Your task to perform on an android device: Open ESPN.com Image 0: 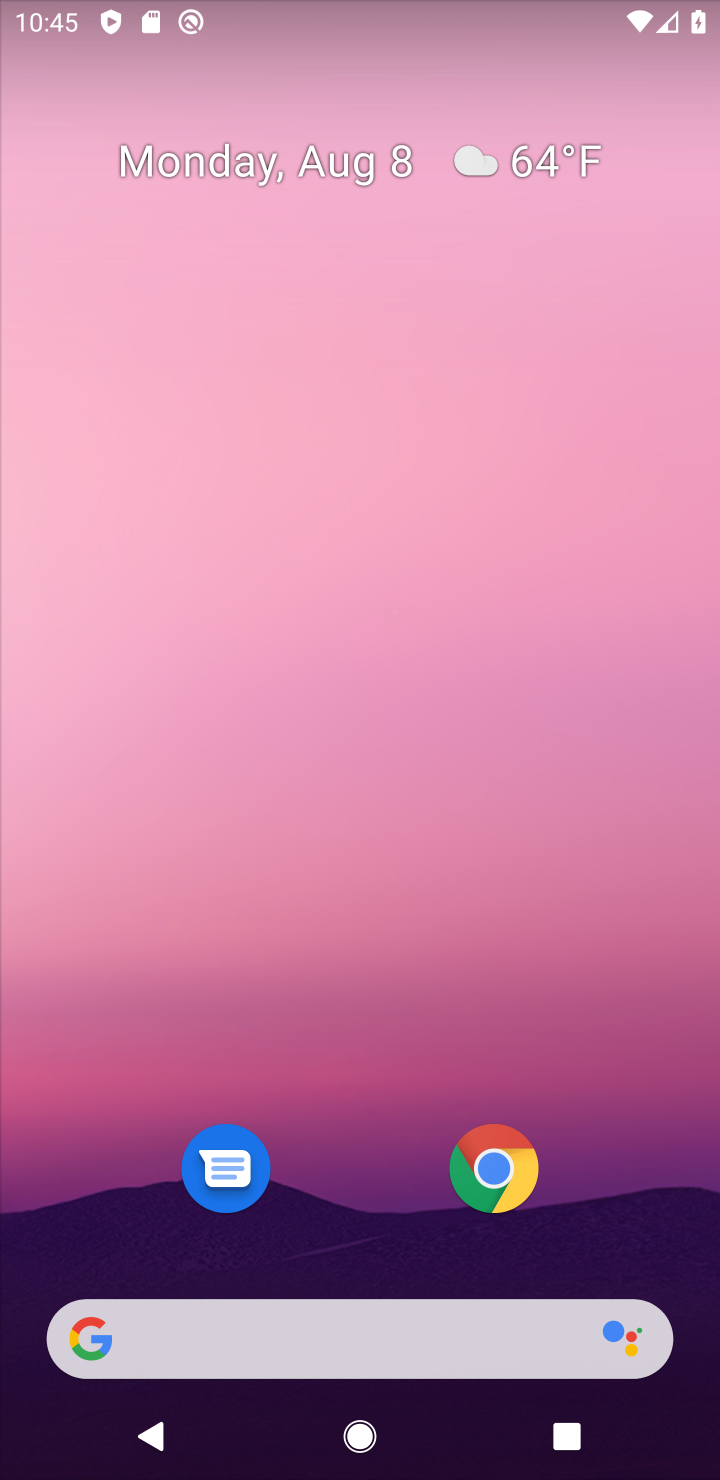
Step 0: click (363, 1343)
Your task to perform on an android device: Open ESPN.com Image 1: 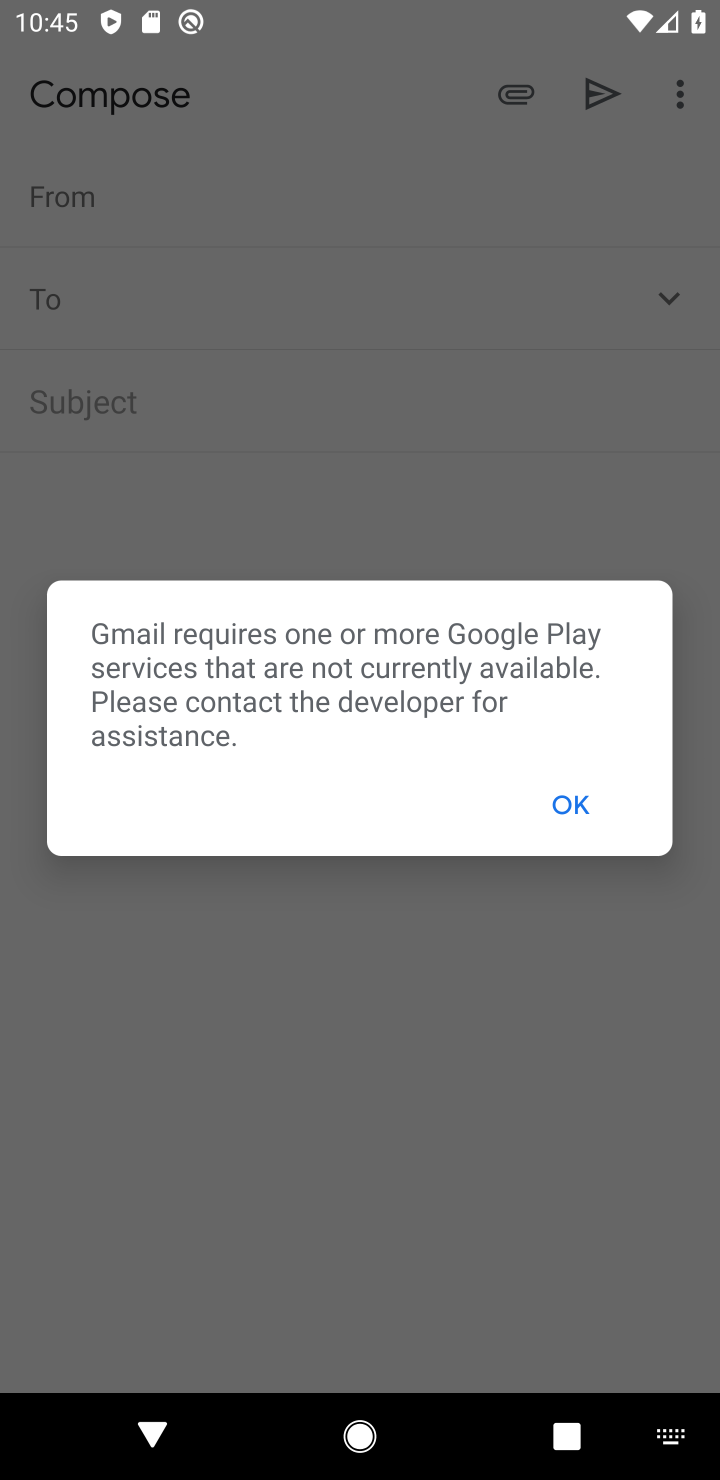
Step 1: press home button
Your task to perform on an android device: Open ESPN.com Image 2: 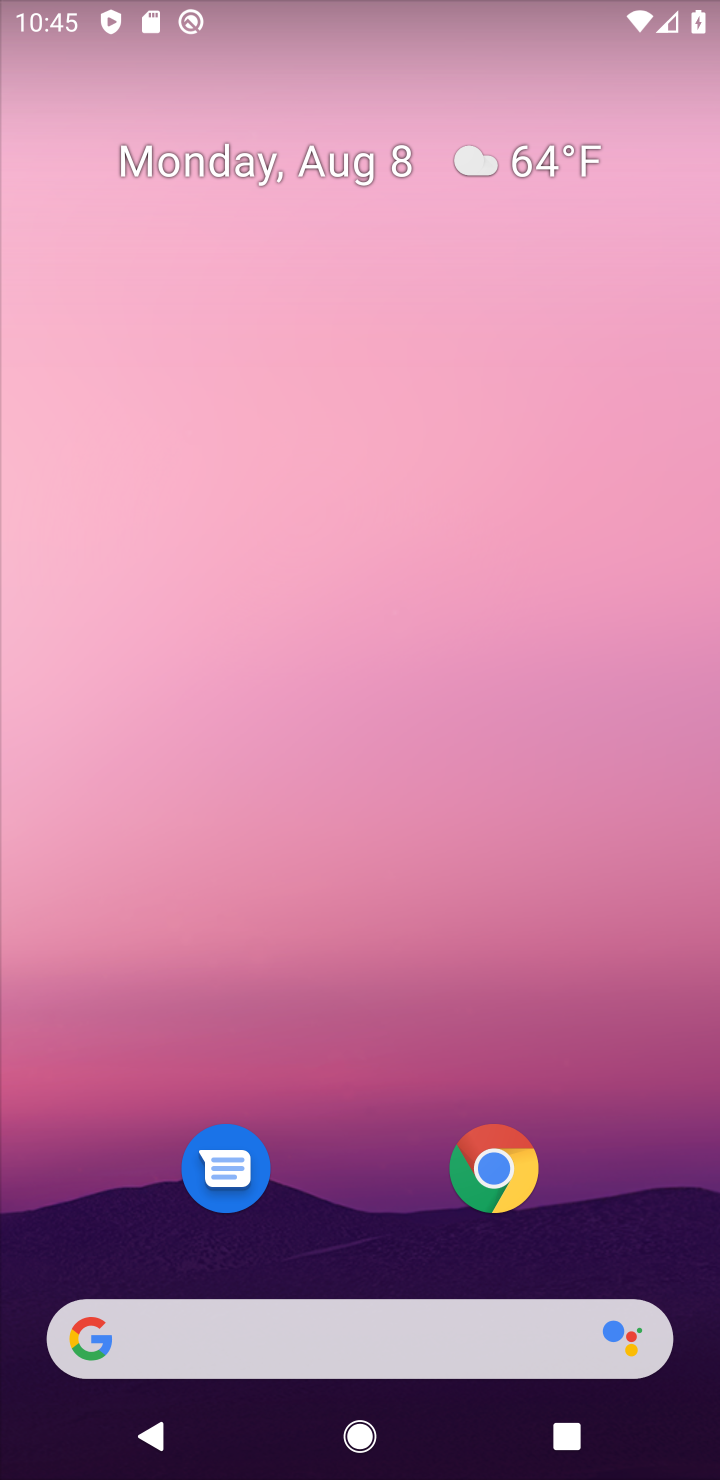
Step 2: click (497, 1218)
Your task to perform on an android device: Open ESPN.com Image 3: 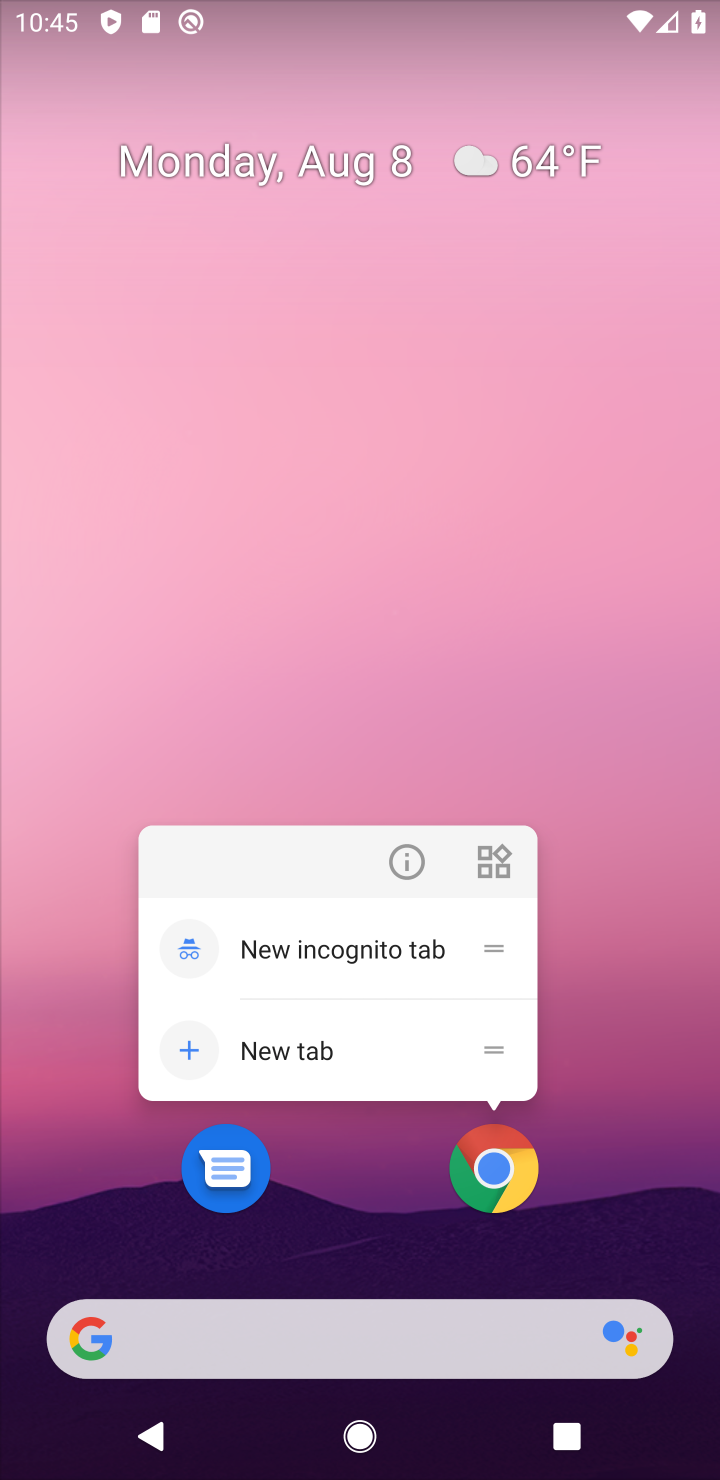
Step 3: click (491, 1185)
Your task to perform on an android device: Open ESPN.com Image 4: 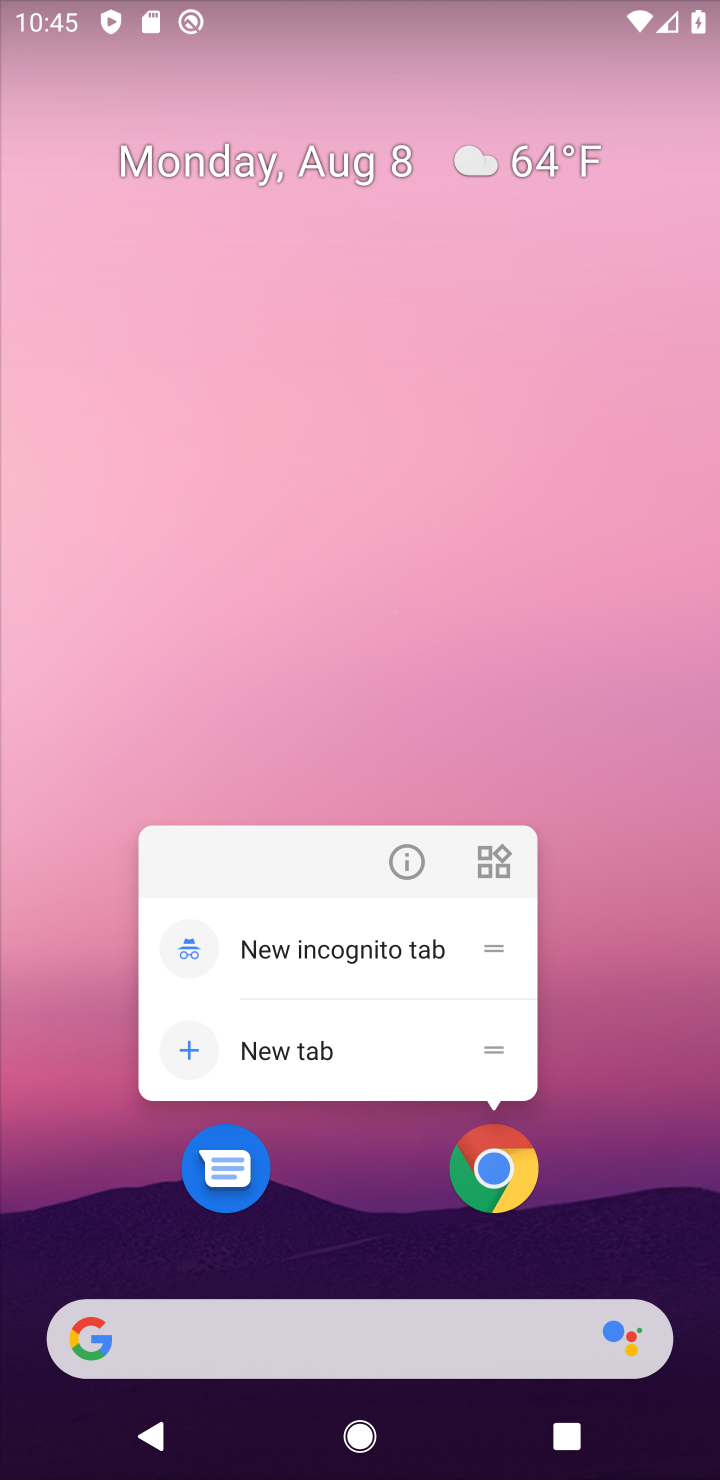
Step 4: click (498, 1171)
Your task to perform on an android device: Open ESPN.com Image 5: 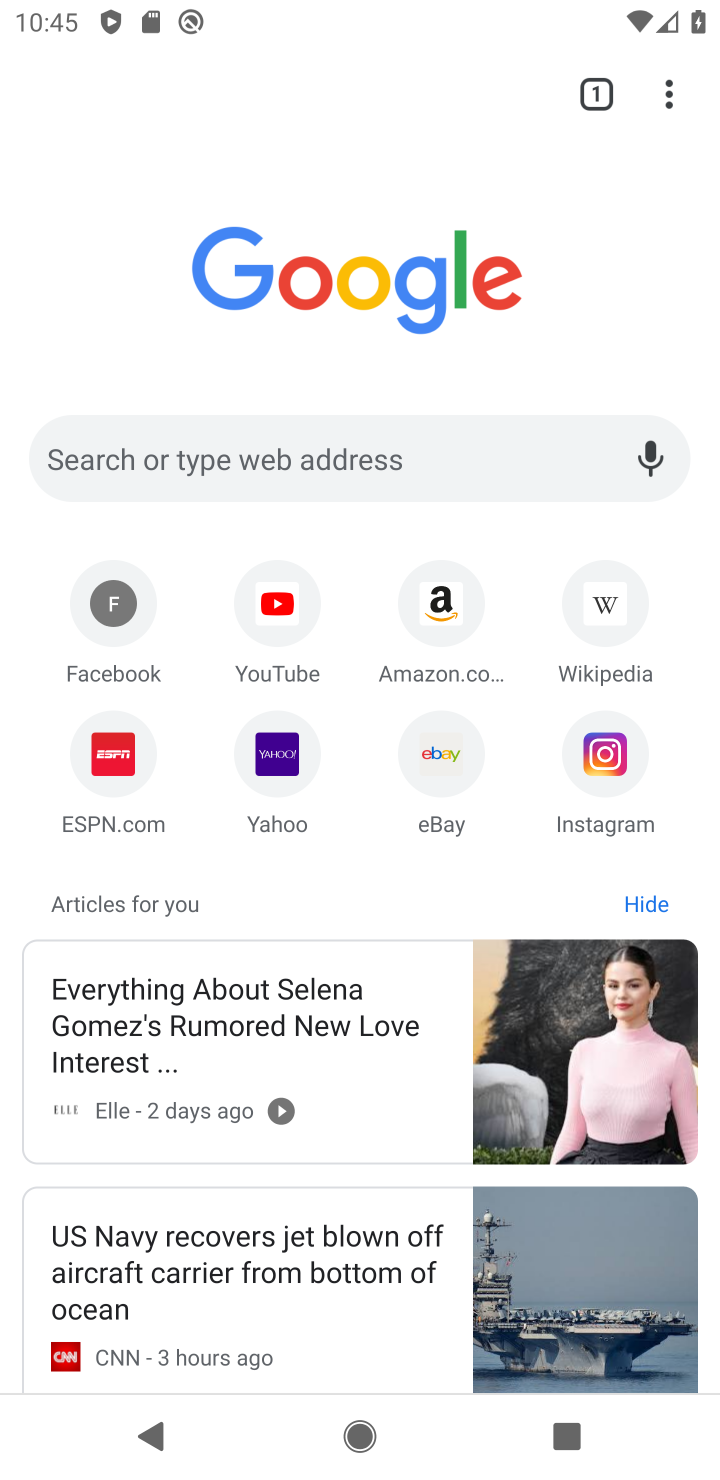
Step 5: click (118, 758)
Your task to perform on an android device: Open ESPN.com Image 6: 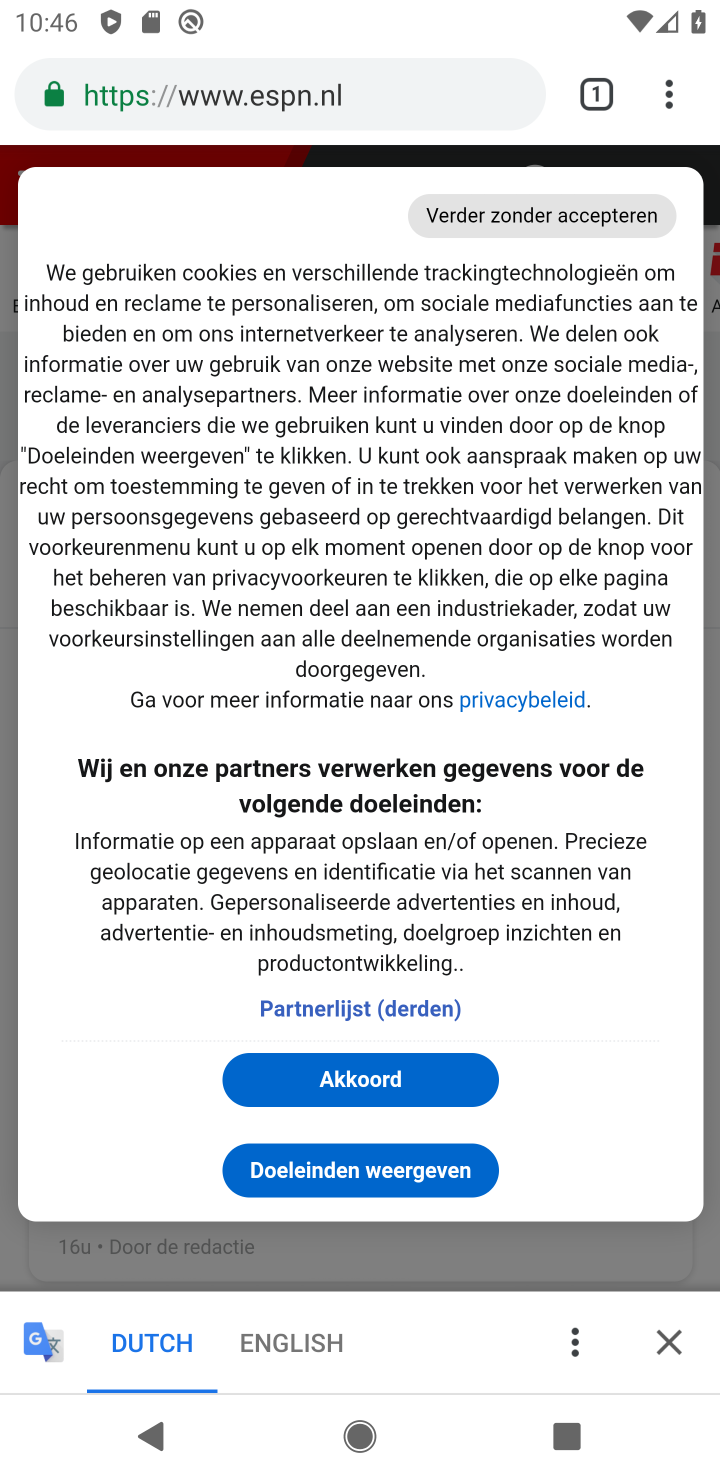
Step 6: task complete